Your task to perform on an android device: turn smart compose on in the gmail app Image 0: 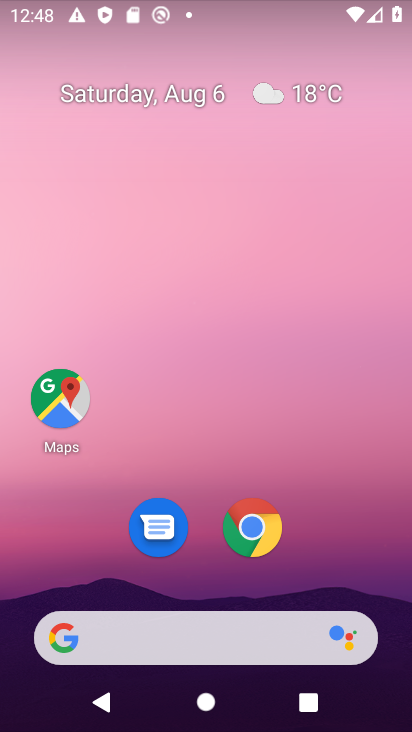
Step 0: click (182, 6)
Your task to perform on an android device: turn smart compose on in the gmail app Image 1: 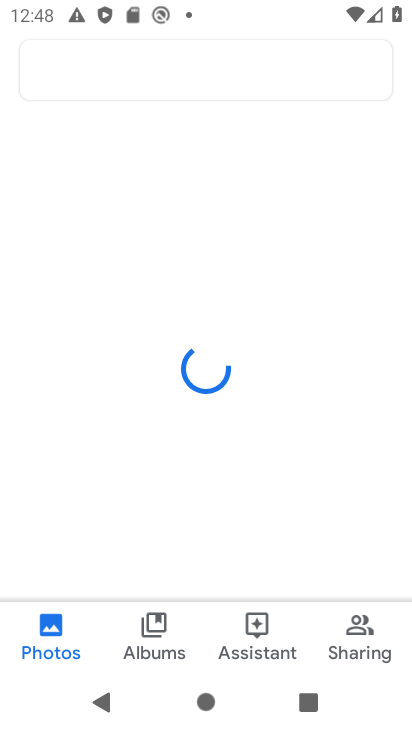
Step 1: press home button
Your task to perform on an android device: turn smart compose on in the gmail app Image 2: 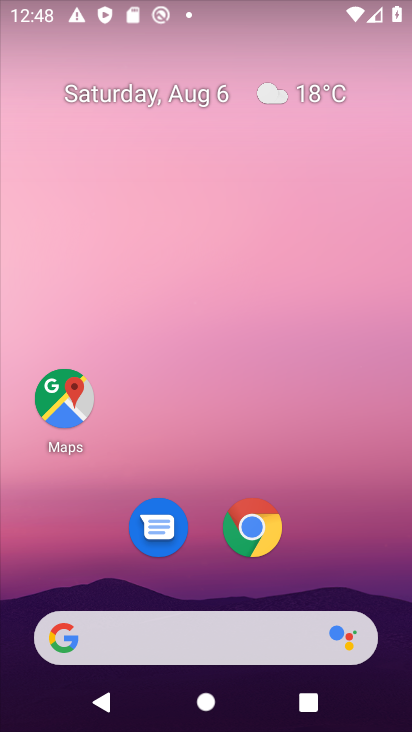
Step 2: drag from (205, 565) to (215, 49)
Your task to perform on an android device: turn smart compose on in the gmail app Image 3: 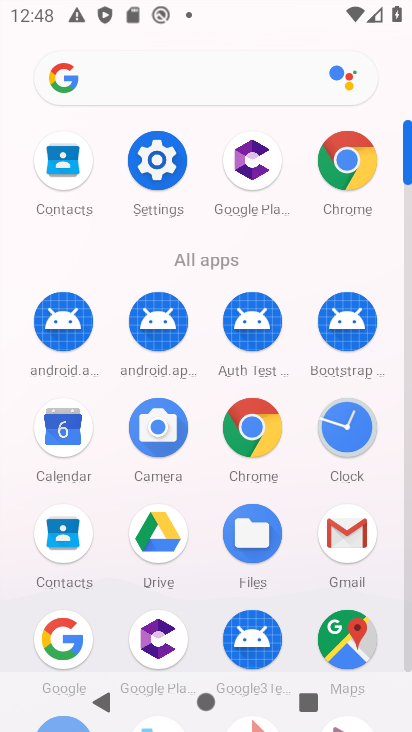
Step 3: click (337, 542)
Your task to perform on an android device: turn smart compose on in the gmail app Image 4: 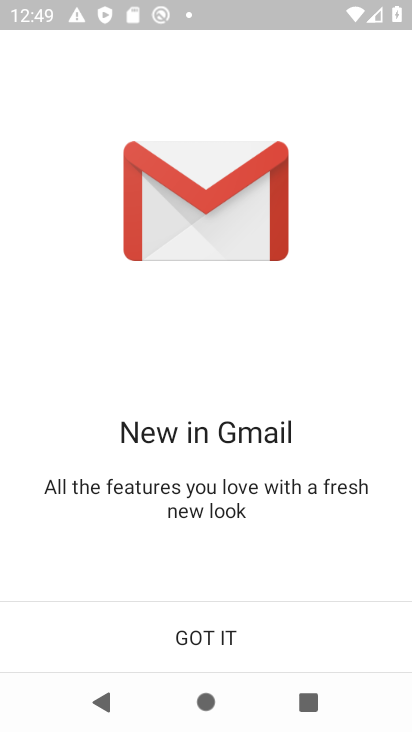
Step 4: click (217, 610)
Your task to perform on an android device: turn smart compose on in the gmail app Image 5: 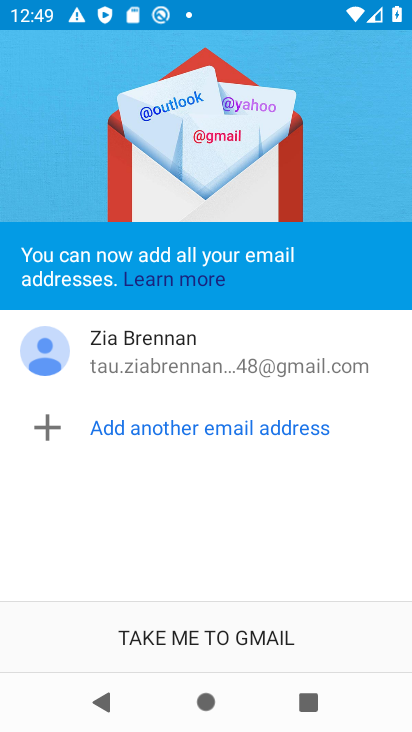
Step 5: click (226, 641)
Your task to perform on an android device: turn smart compose on in the gmail app Image 6: 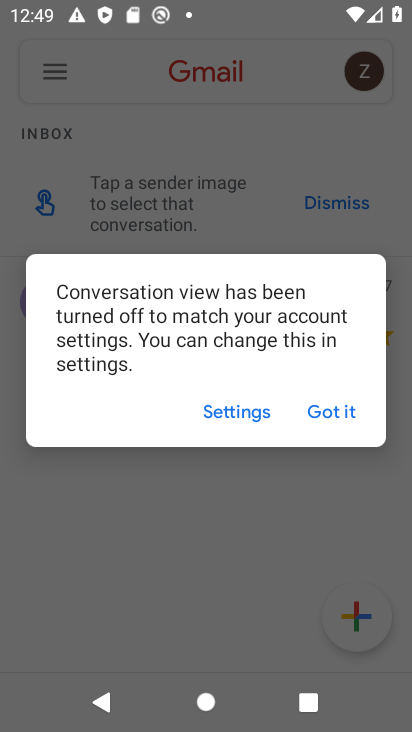
Step 6: click (325, 416)
Your task to perform on an android device: turn smart compose on in the gmail app Image 7: 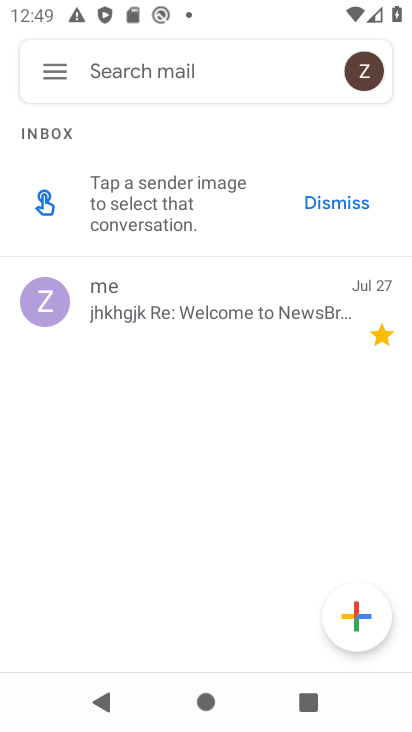
Step 7: click (47, 86)
Your task to perform on an android device: turn smart compose on in the gmail app Image 8: 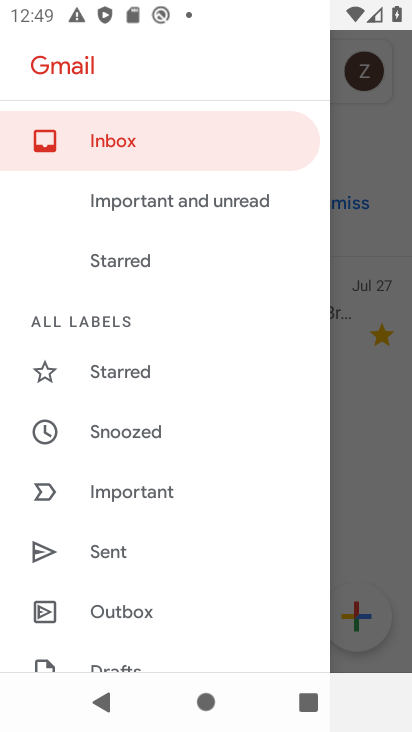
Step 8: drag from (87, 592) to (92, 75)
Your task to perform on an android device: turn smart compose on in the gmail app Image 9: 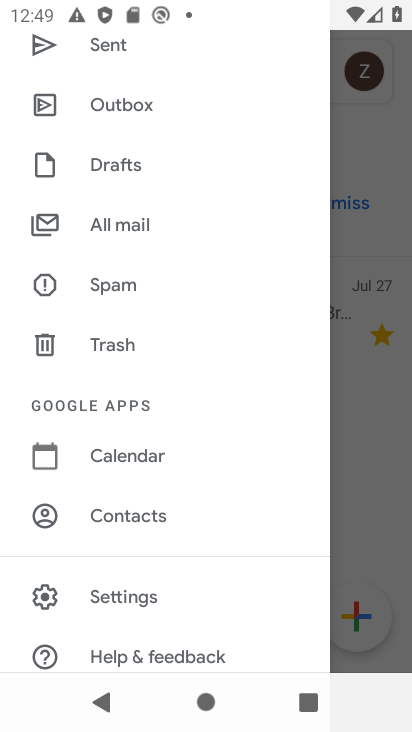
Step 9: click (136, 608)
Your task to perform on an android device: turn smart compose on in the gmail app Image 10: 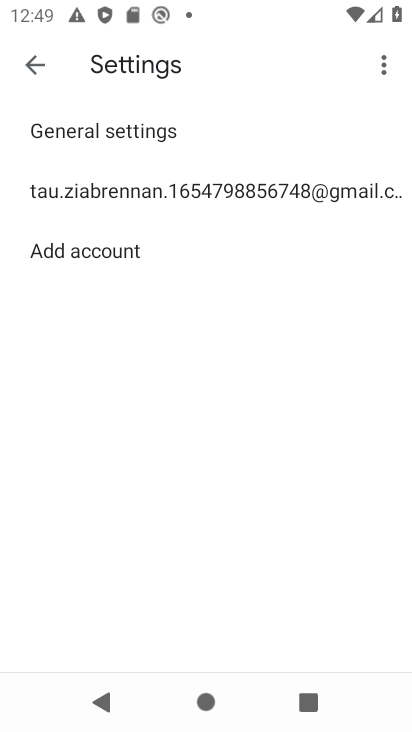
Step 10: click (146, 185)
Your task to perform on an android device: turn smart compose on in the gmail app Image 11: 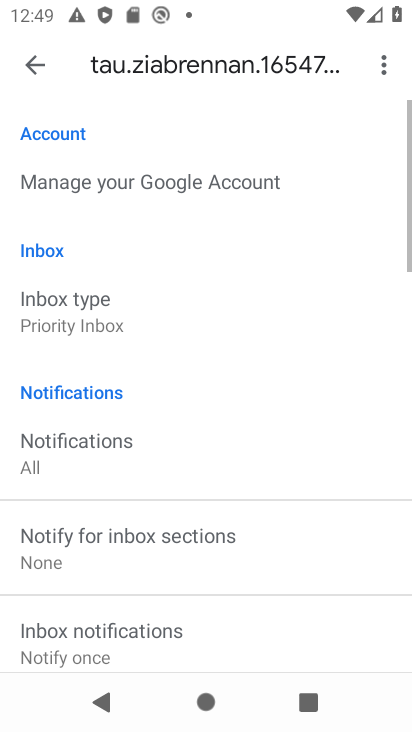
Step 11: task complete